Your task to perform on an android device: see creations saved in the google photos Image 0: 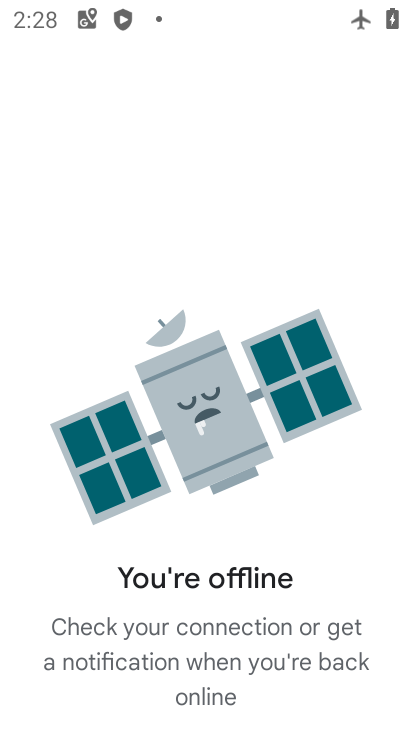
Step 0: press home button
Your task to perform on an android device: see creations saved in the google photos Image 1: 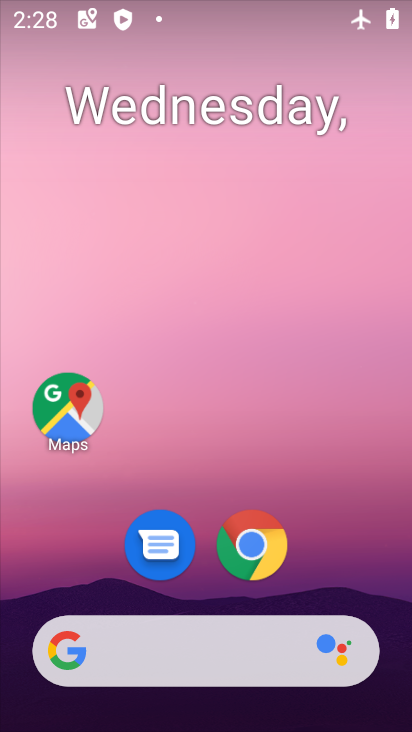
Step 1: drag from (335, 541) to (292, 158)
Your task to perform on an android device: see creations saved in the google photos Image 2: 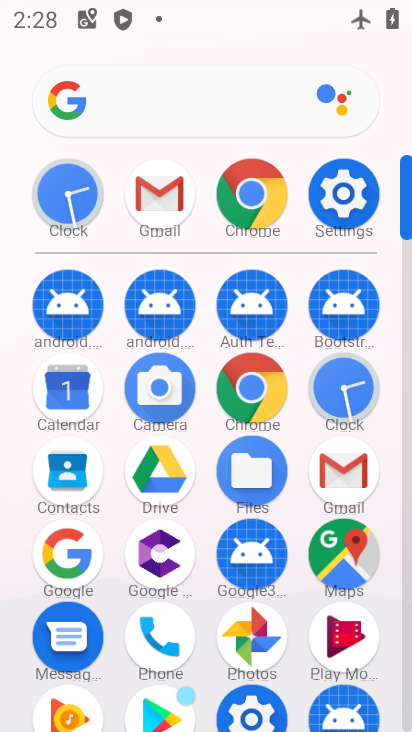
Step 2: click (250, 641)
Your task to perform on an android device: see creations saved in the google photos Image 3: 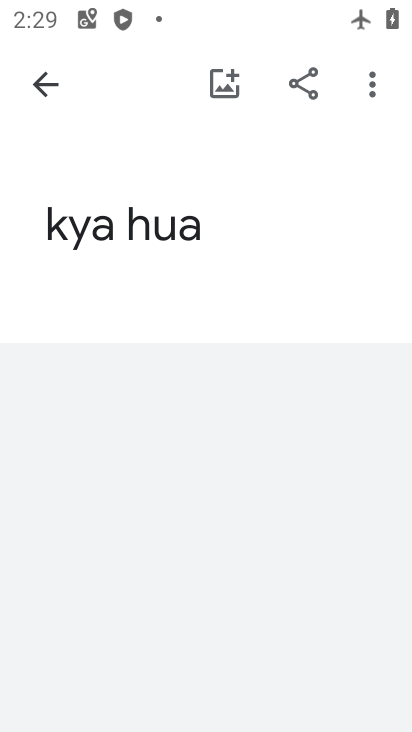
Step 3: click (79, 100)
Your task to perform on an android device: see creations saved in the google photos Image 4: 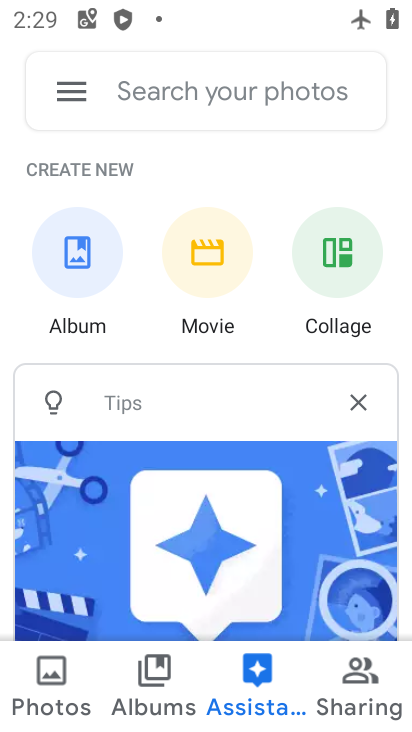
Step 4: task complete